Your task to perform on an android device: Is it going to rain this weekend? Image 0: 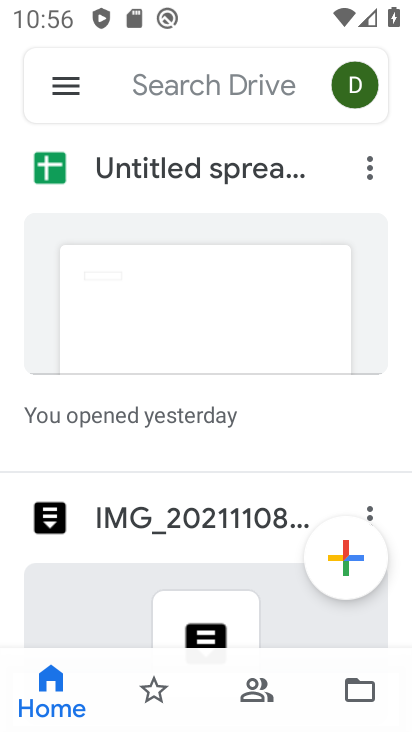
Step 0: press home button
Your task to perform on an android device: Is it going to rain this weekend? Image 1: 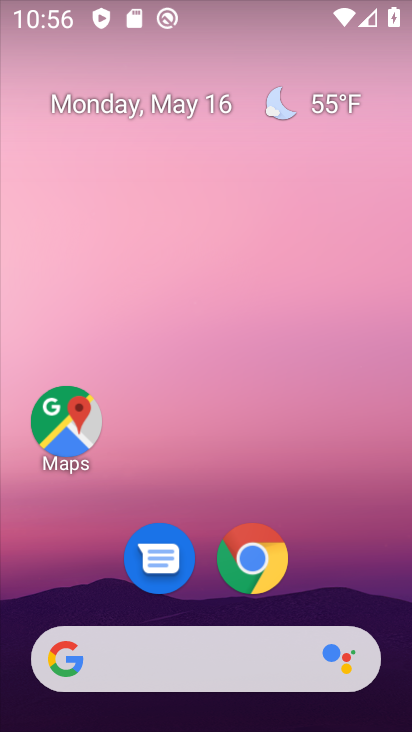
Step 1: drag from (215, 595) to (248, 140)
Your task to perform on an android device: Is it going to rain this weekend? Image 2: 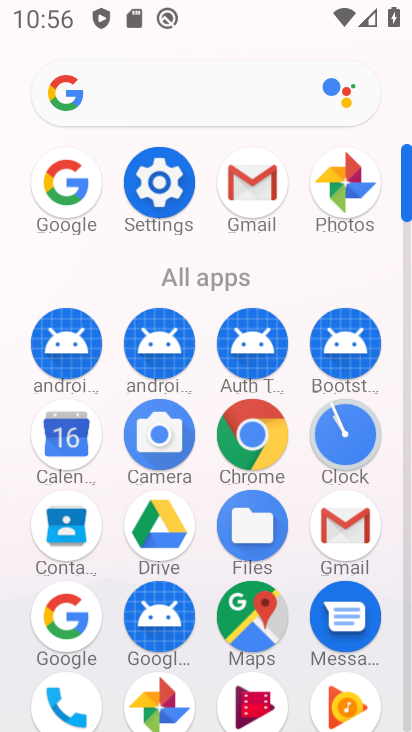
Step 2: click (67, 181)
Your task to perform on an android device: Is it going to rain this weekend? Image 3: 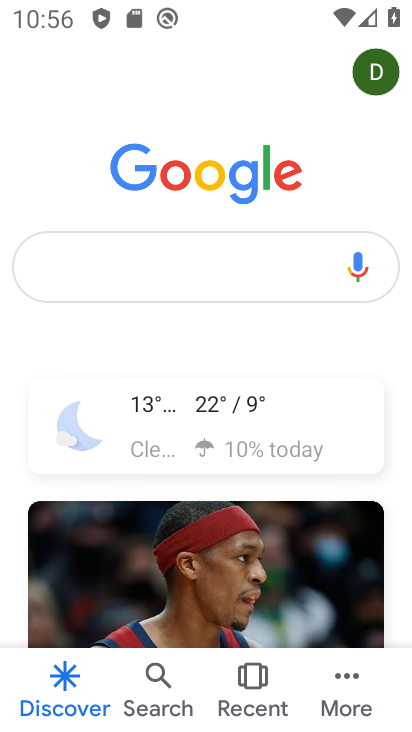
Step 3: type "is it going to rain this weekend"
Your task to perform on an android device: Is it going to rain this weekend? Image 4: 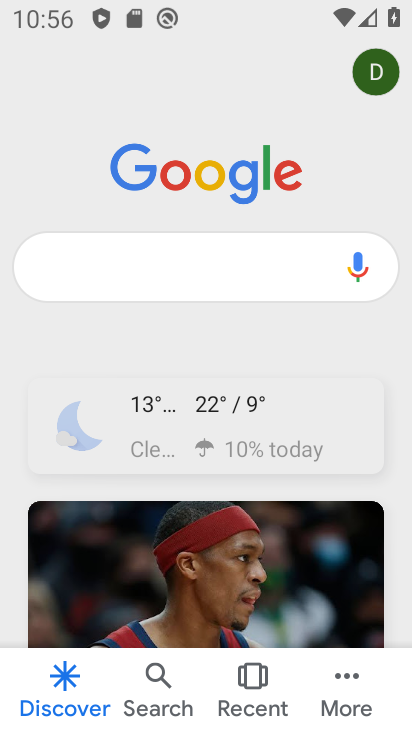
Step 4: click (181, 267)
Your task to perform on an android device: Is it going to rain this weekend? Image 5: 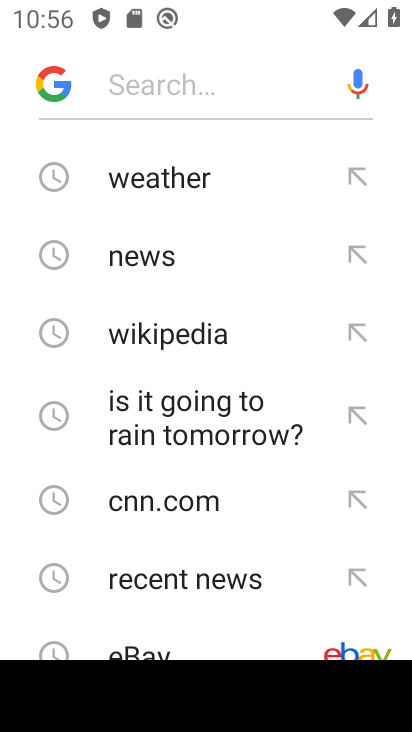
Step 5: type "is it going to rain this weekend"
Your task to perform on an android device: Is it going to rain this weekend? Image 6: 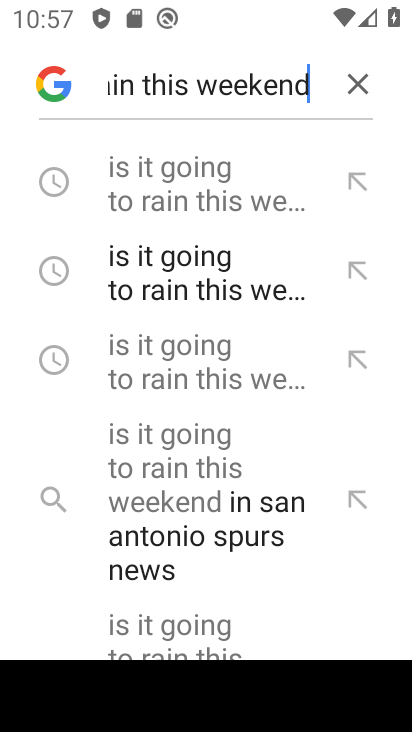
Step 6: task complete